Your task to perform on an android device: Toggle the flashlight Image 0: 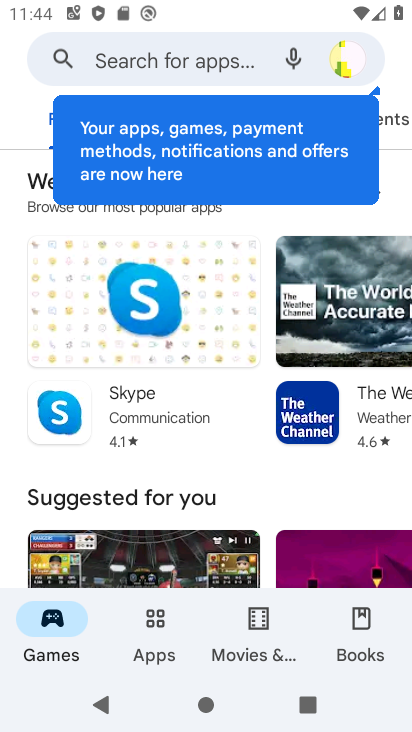
Step 0: drag from (249, 6) to (264, 413)
Your task to perform on an android device: Toggle the flashlight Image 1: 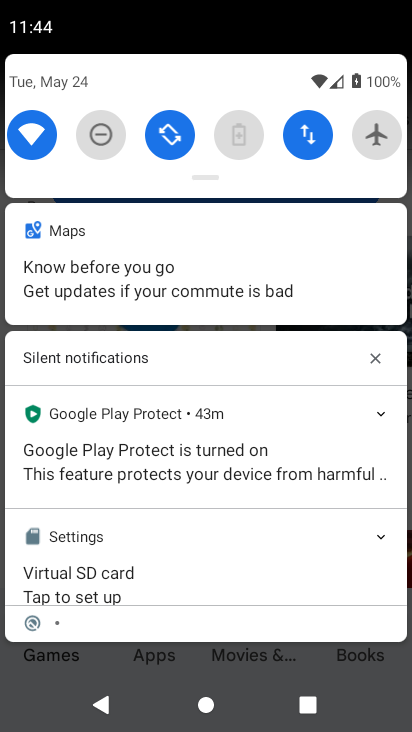
Step 1: drag from (206, 441) to (215, 501)
Your task to perform on an android device: Toggle the flashlight Image 2: 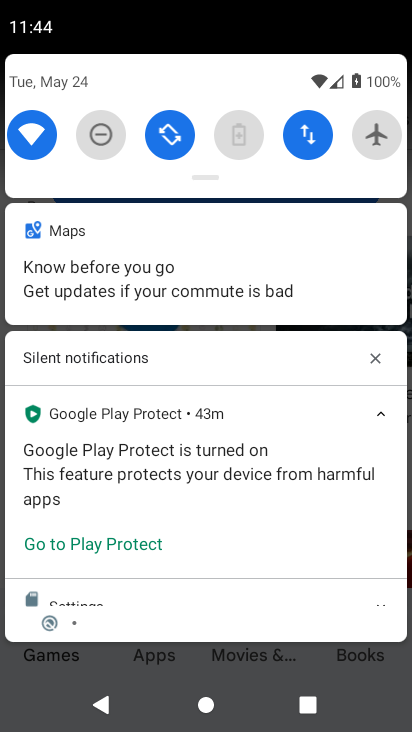
Step 2: drag from (204, 139) to (213, 525)
Your task to perform on an android device: Toggle the flashlight Image 3: 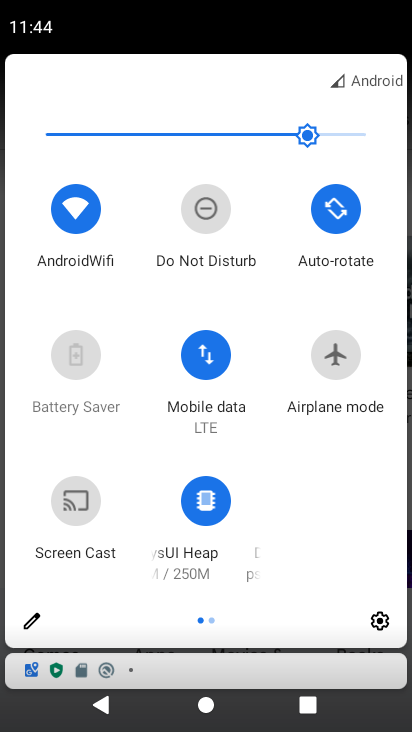
Step 3: click (40, 625)
Your task to perform on an android device: Toggle the flashlight Image 4: 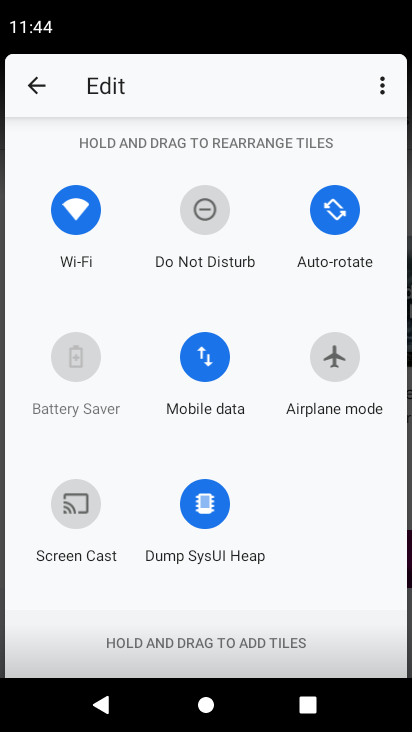
Step 4: task complete